Your task to perform on an android device: Open location settings Image 0: 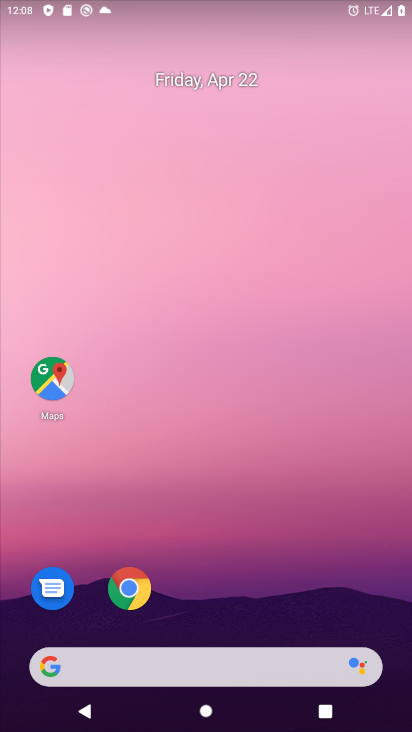
Step 0: drag from (243, 686) to (277, 196)
Your task to perform on an android device: Open location settings Image 1: 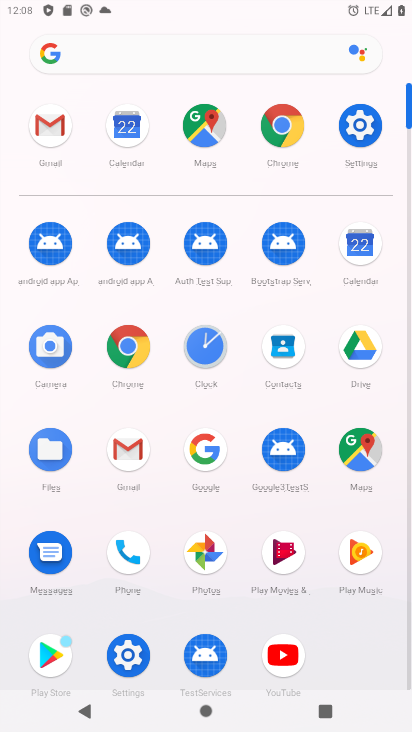
Step 1: click (126, 641)
Your task to perform on an android device: Open location settings Image 2: 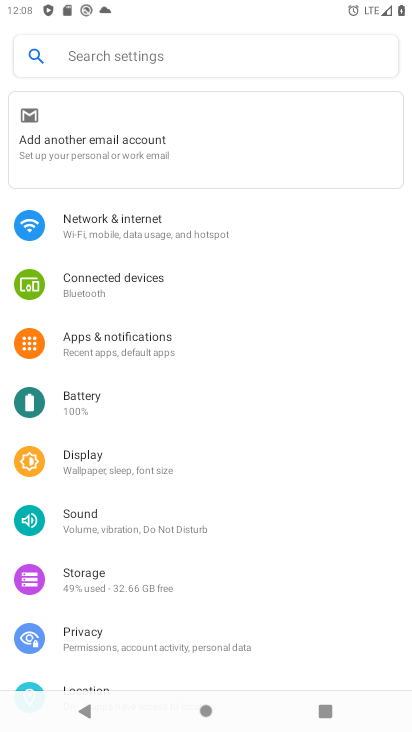
Step 2: click (93, 683)
Your task to perform on an android device: Open location settings Image 3: 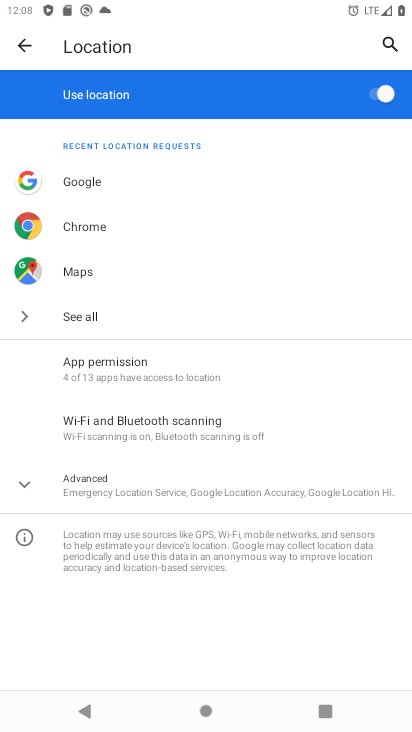
Step 3: task complete